Your task to perform on an android device: turn on javascript in the chrome app Image 0: 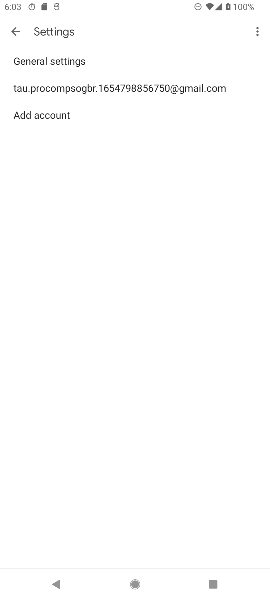
Step 0: click (18, 30)
Your task to perform on an android device: turn on javascript in the chrome app Image 1: 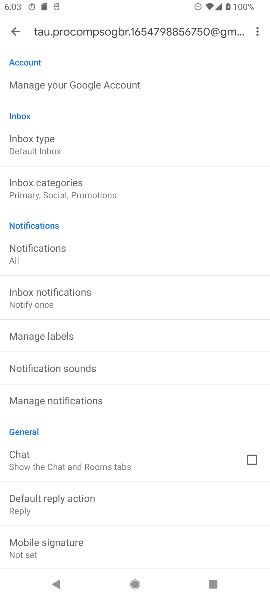
Step 1: click (13, 31)
Your task to perform on an android device: turn on javascript in the chrome app Image 2: 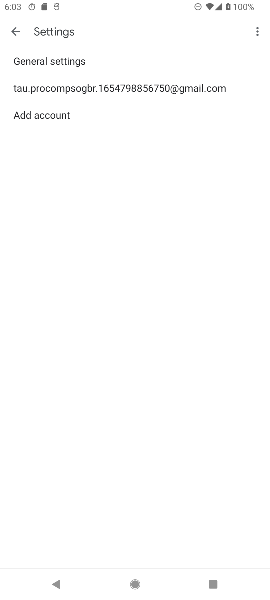
Step 2: click (20, 31)
Your task to perform on an android device: turn on javascript in the chrome app Image 3: 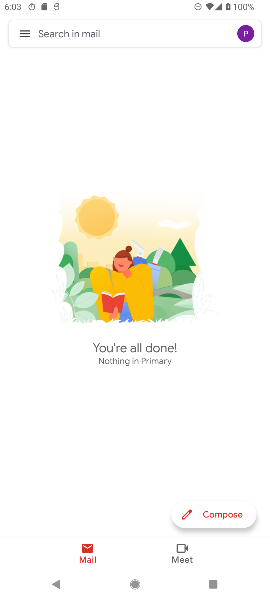
Step 3: press back button
Your task to perform on an android device: turn on javascript in the chrome app Image 4: 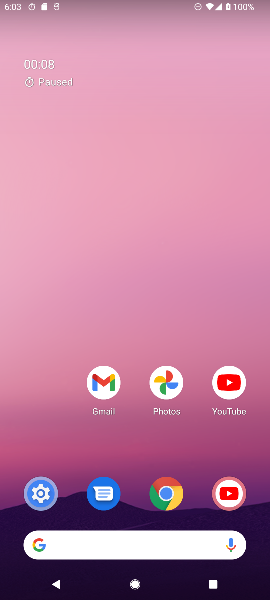
Step 4: drag from (130, 520) to (99, 139)
Your task to perform on an android device: turn on javascript in the chrome app Image 5: 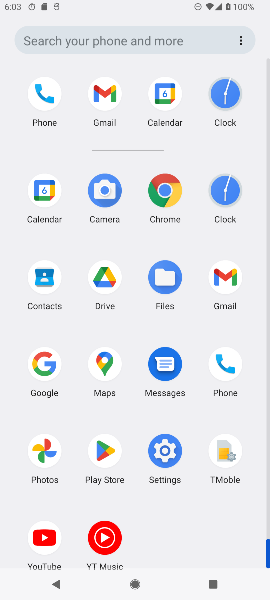
Step 5: drag from (120, 467) to (99, 173)
Your task to perform on an android device: turn on javascript in the chrome app Image 6: 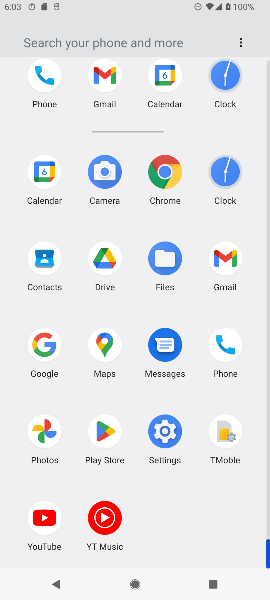
Step 6: click (165, 176)
Your task to perform on an android device: turn on javascript in the chrome app Image 7: 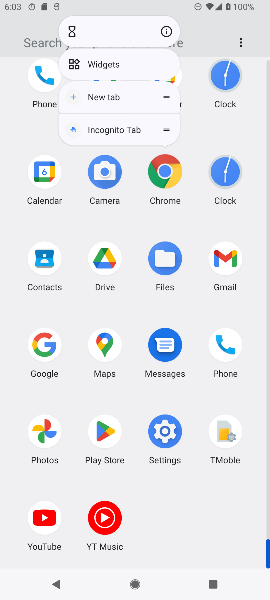
Step 7: click (164, 171)
Your task to perform on an android device: turn on javascript in the chrome app Image 8: 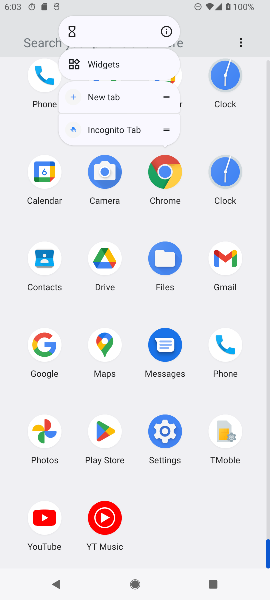
Step 8: click (164, 171)
Your task to perform on an android device: turn on javascript in the chrome app Image 9: 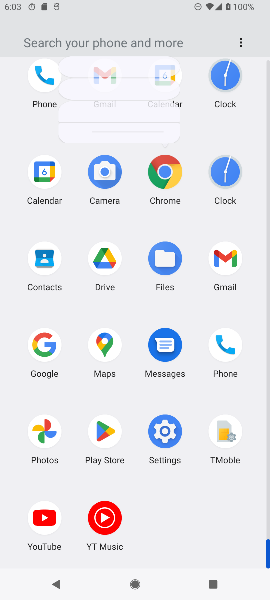
Step 9: click (164, 171)
Your task to perform on an android device: turn on javascript in the chrome app Image 10: 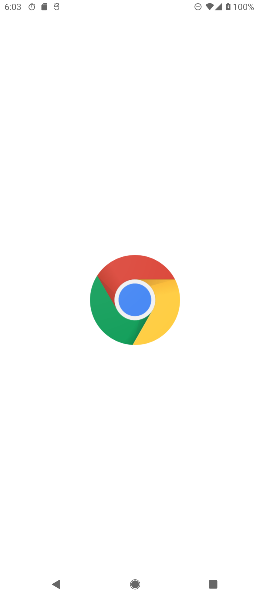
Step 10: click (164, 171)
Your task to perform on an android device: turn on javascript in the chrome app Image 11: 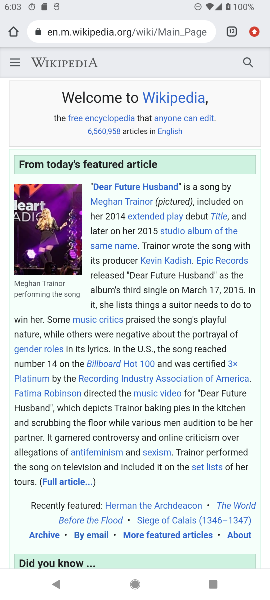
Step 11: drag from (246, 26) to (142, 357)
Your task to perform on an android device: turn on javascript in the chrome app Image 12: 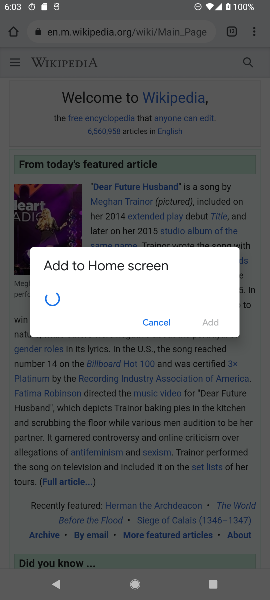
Step 12: click (169, 318)
Your task to perform on an android device: turn on javascript in the chrome app Image 13: 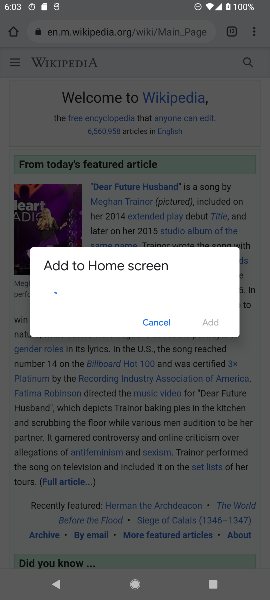
Step 13: click (154, 322)
Your task to perform on an android device: turn on javascript in the chrome app Image 14: 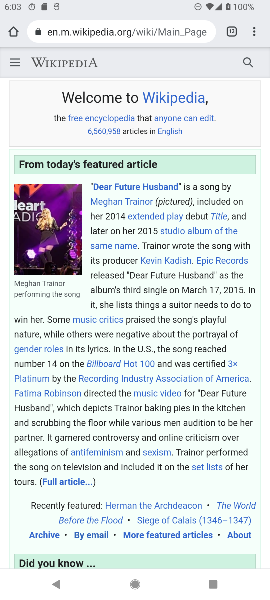
Step 14: drag from (253, 25) to (158, 424)
Your task to perform on an android device: turn on javascript in the chrome app Image 15: 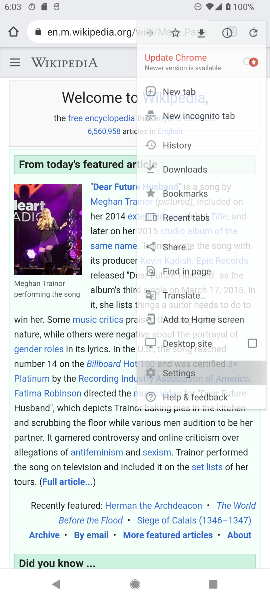
Step 15: click (158, 424)
Your task to perform on an android device: turn on javascript in the chrome app Image 16: 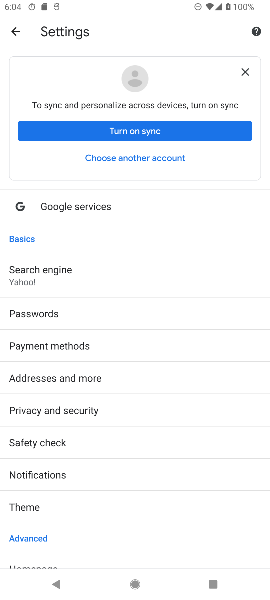
Step 16: drag from (45, 492) to (74, 216)
Your task to perform on an android device: turn on javascript in the chrome app Image 17: 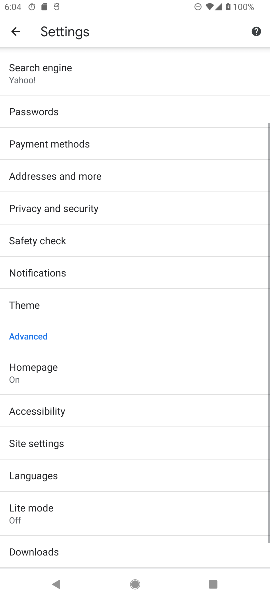
Step 17: drag from (70, 433) to (68, 250)
Your task to perform on an android device: turn on javascript in the chrome app Image 18: 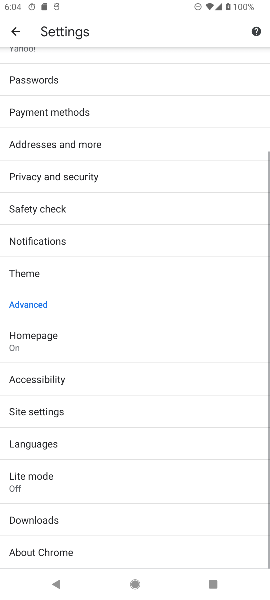
Step 18: drag from (65, 344) to (71, 188)
Your task to perform on an android device: turn on javascript in the chrome app Image 19: 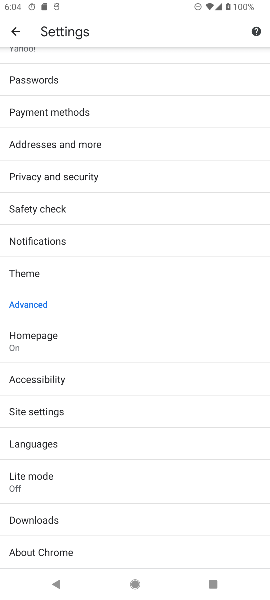
Step 19: click (39, 407)
Your task to perform on an android device: turn on javascript in the chrome app Image 20: 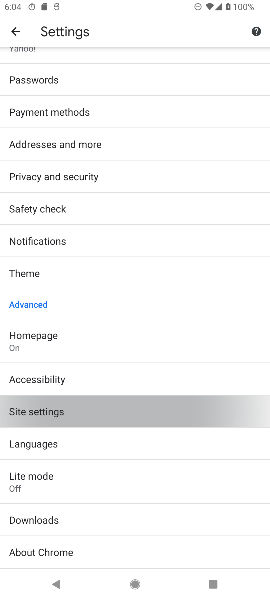
Step 20: click (39, 408)
Your task to perform on an android device: turn on javascript in the chrome app Image 21: 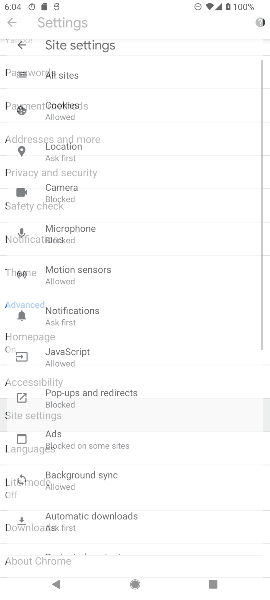
Step 21: click (39, 408)
Your task to perform on an android device: turn on javascript in the chrome app Image 22: 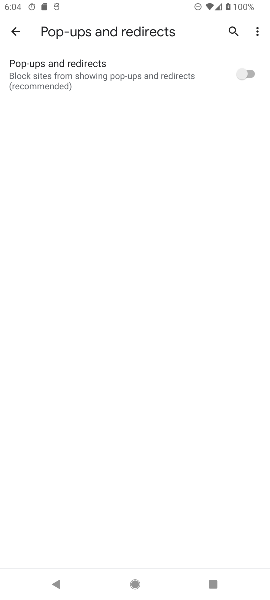
Step 22: click (14, 34)
Your task to perform on an android device: turn on javascript in the chrome app Image 23: 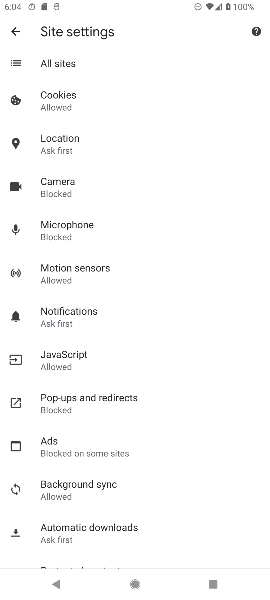
Step 23: click (56, 359)
Your task to perform on an android device: turn on javascript in the chrome app Image 24: 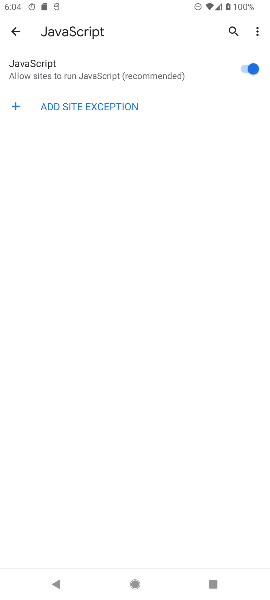
Step 24: task complete